Your task to perform on an android device: Open Amazon Image 0: 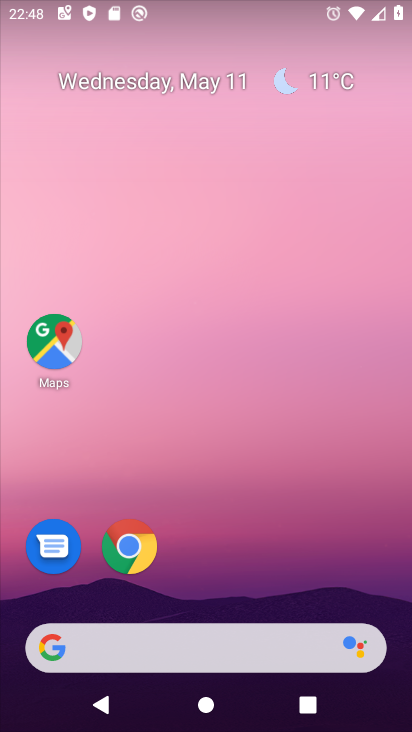
Step 0: click (126, 542)
Your task to perform on an android device: Open Amazon Image 1: 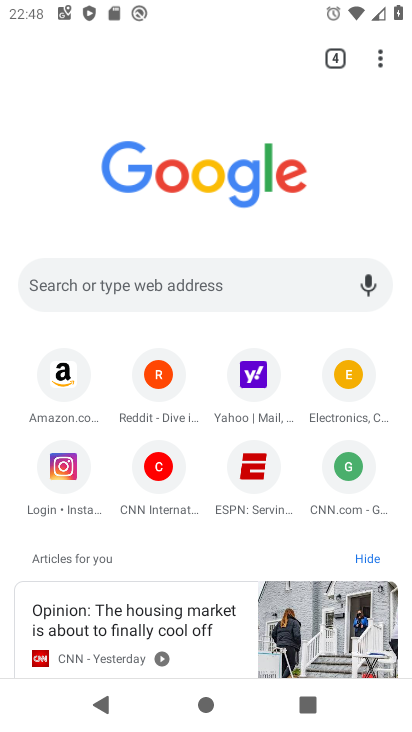
Step 1: click (63, 367)
Your task to perform on an android device: Open Amazon Image 2: 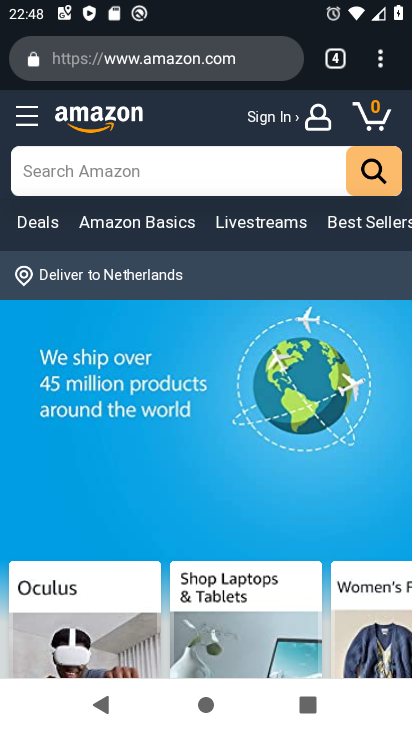
Step 2: task complete